Your task to perform on an android device: open app "Truecaller" (install if not already installed), go to login, and select forgot password Image 0: 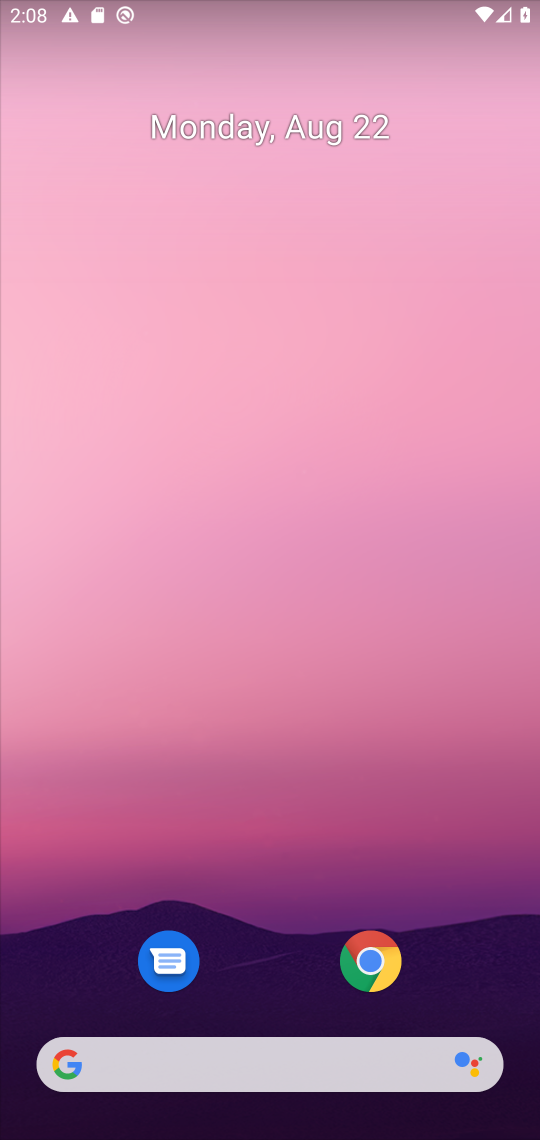
Step 0: press home button
Your task to perform on an android device: open app "Truecaller" (install if not already installed), go to login, and select forgot password Image 1: 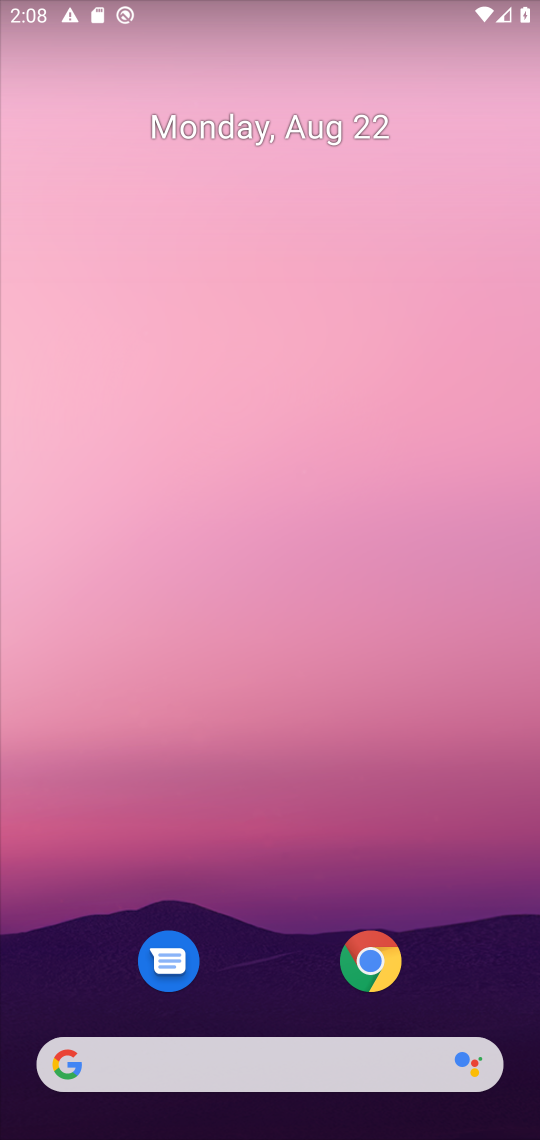
Step 1: drag from (478, 964) to (479, 202)
Your task to perform on an android device: open app "Truecaller" (install if not already installed), go to login, and select forgot password Image 2: 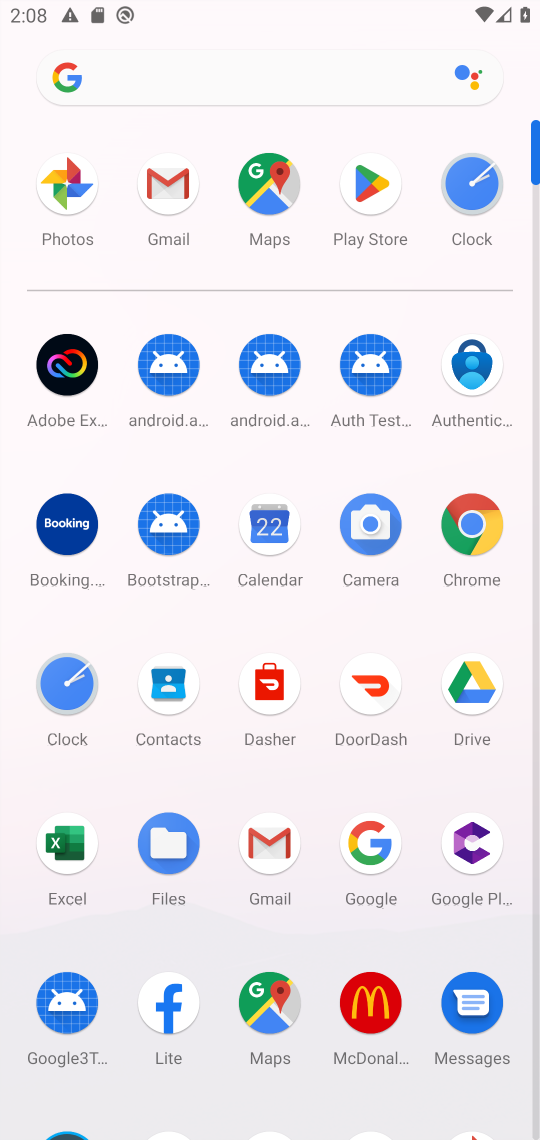
Step 2: click (372, 194)
Your task to perform on an android device: open app "Truecaller" (install if not already installed), go to login, and select forgot password Image 3: 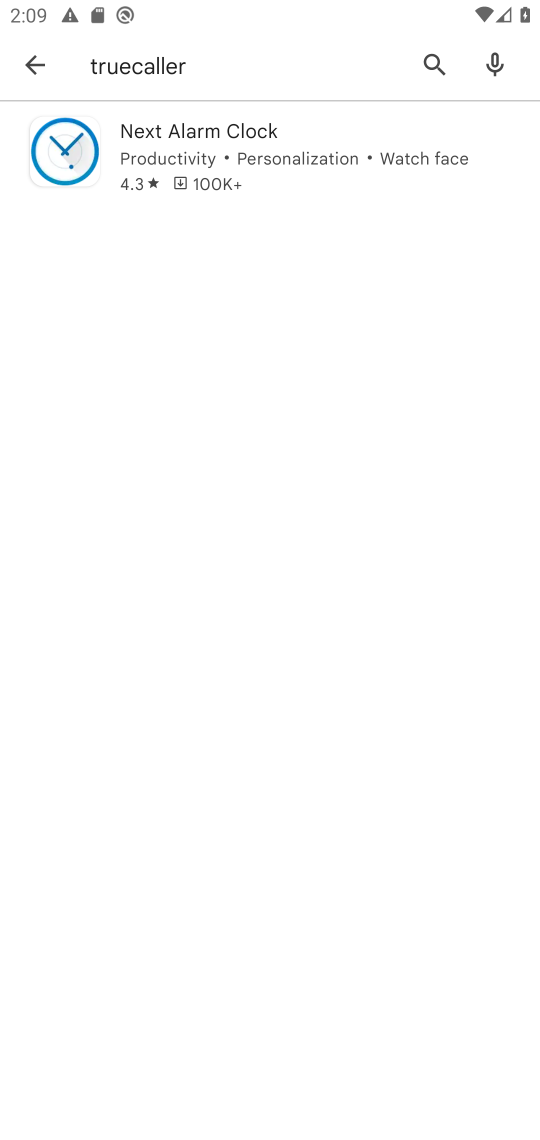
Step 3: press back button
Your task to perform on an android device: open app "Truecaller" (install if not already installed), go to login, and select forgot password Image 4: 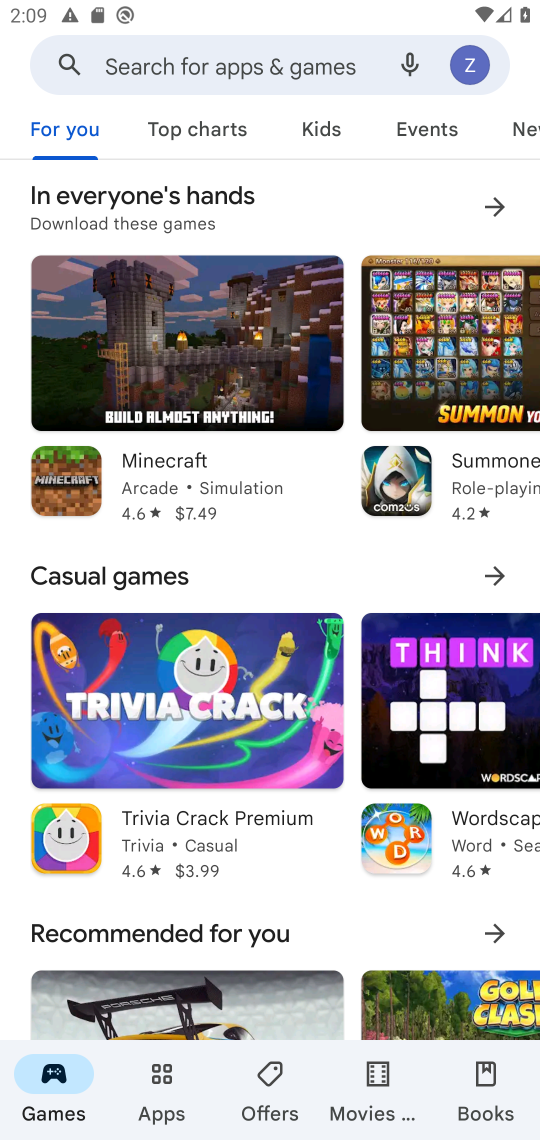
Step 4: click (302, 57)
Your task to perform on an android device: open app "Truecaller" (install if not already installed), go to login, and select forgot password Image 5: 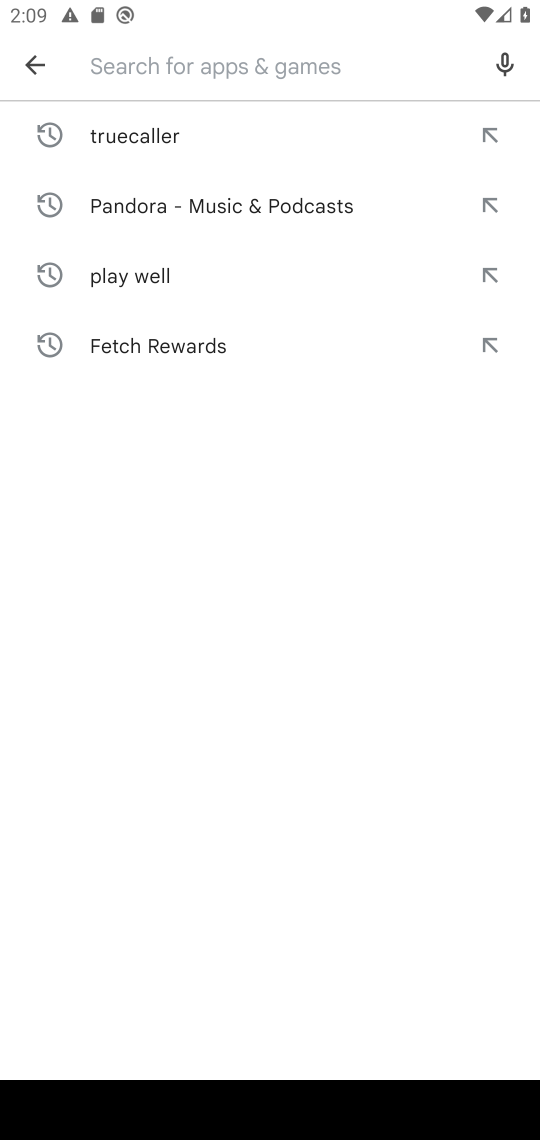
Step 5: press enter
Your task to perform on an android device: open app "Truecaller" (install if not already installed), go to login, and select forgot password Image 6: 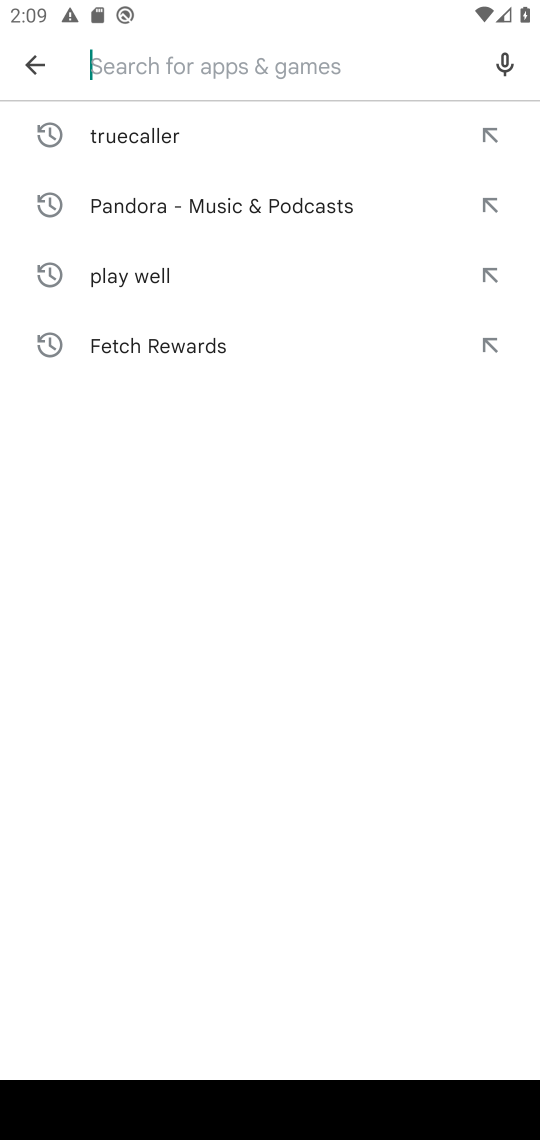
Step 6: type "truecaller"
Your task to perform on an android device: open app "Truecaller" (install if not already installed), go to login, and select forgot password Image 7: 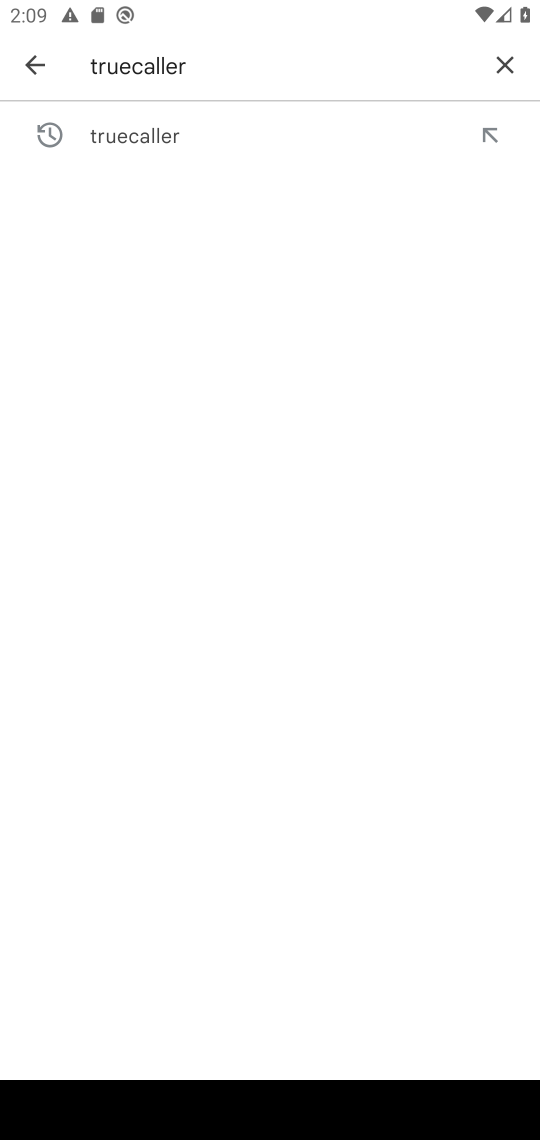
Step 7: click (194, 126)
Your task to perform on an android device: open app "Truecaller" (install if not already installed), go to login, and select forgot password Image 8: 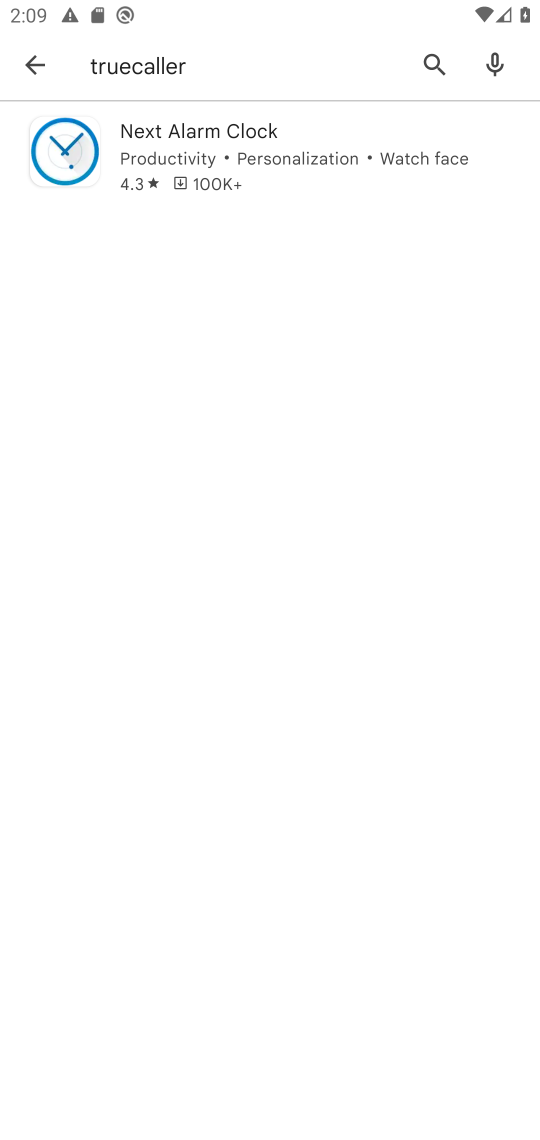
Step 8: task complete